Your task to perform on an android device: Open the Play Movies app and select the watchlist tab. Image 0: 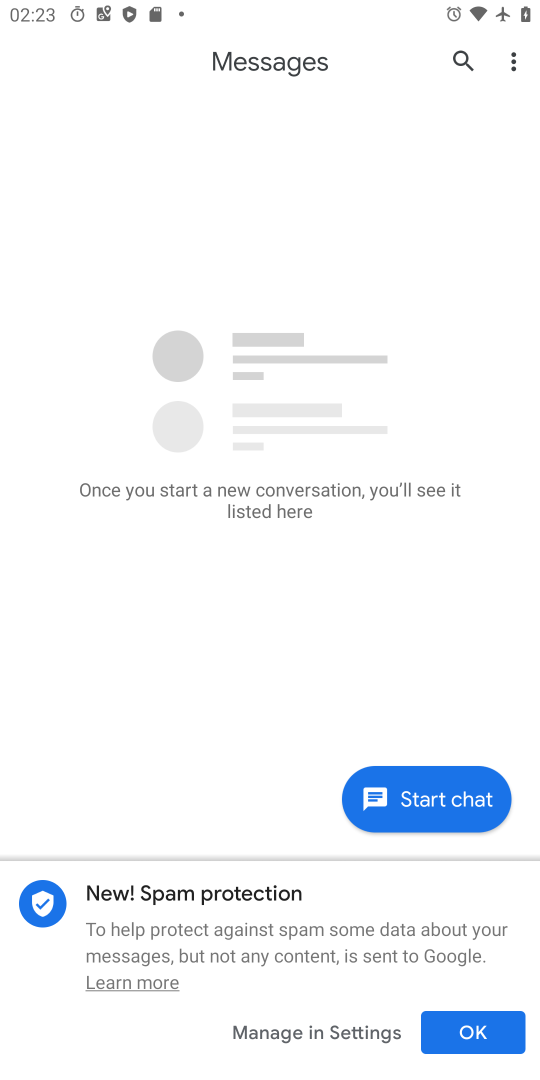
Step 0: press home button
Your task to perform on an android device: Open the Play Movies app and select the watchlist tab. Image 1: 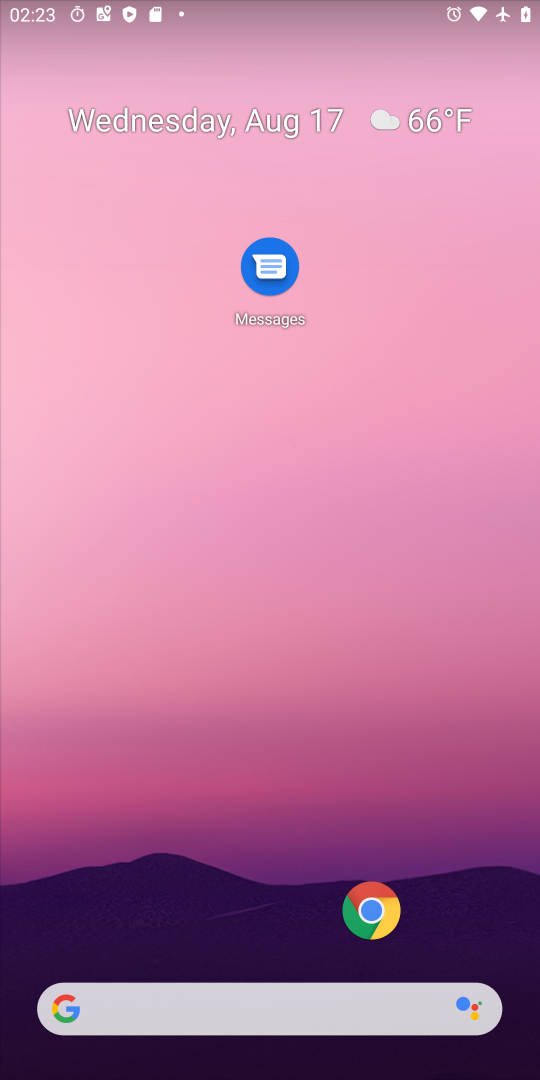
Step 1: drag from (182, 950) to (161, 242)
Your task to perform on an android device: Open the Play Movies app and select the watchlist tab. Image 2: 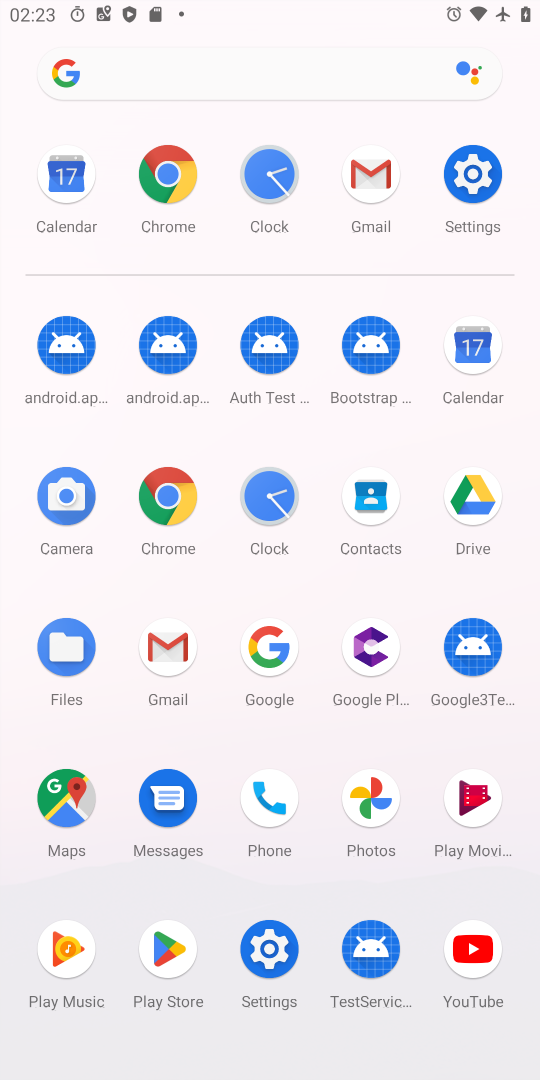
Step 2: click (468, 794)
Your task to perform on an android device: Open the Play Movies app and select the watchlist tab. Image 3: 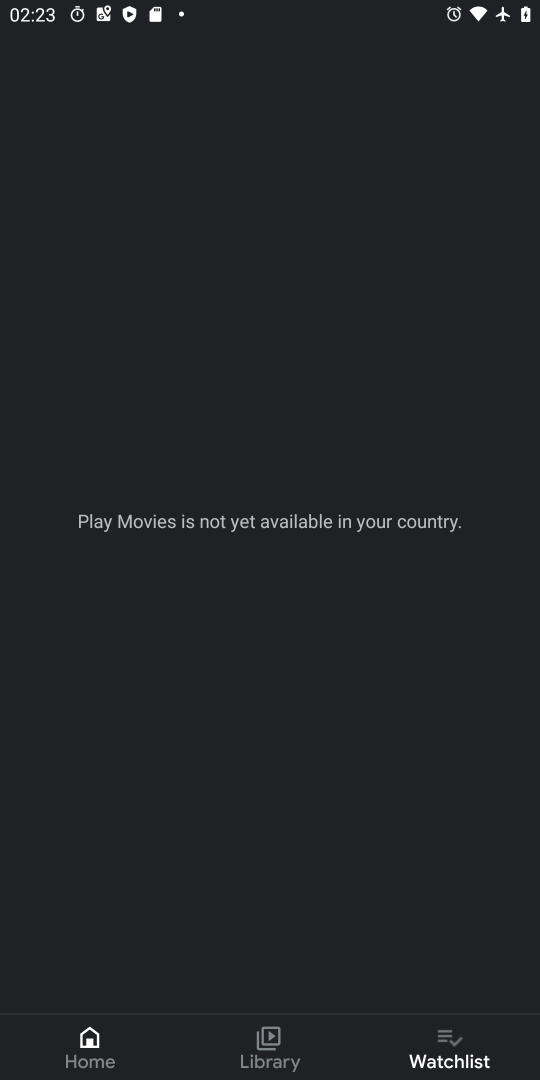
Step 3: click (472, 1039)
Your task to perform on an android device: Open the Play Movies app and select the watchlist tab. Image 4: 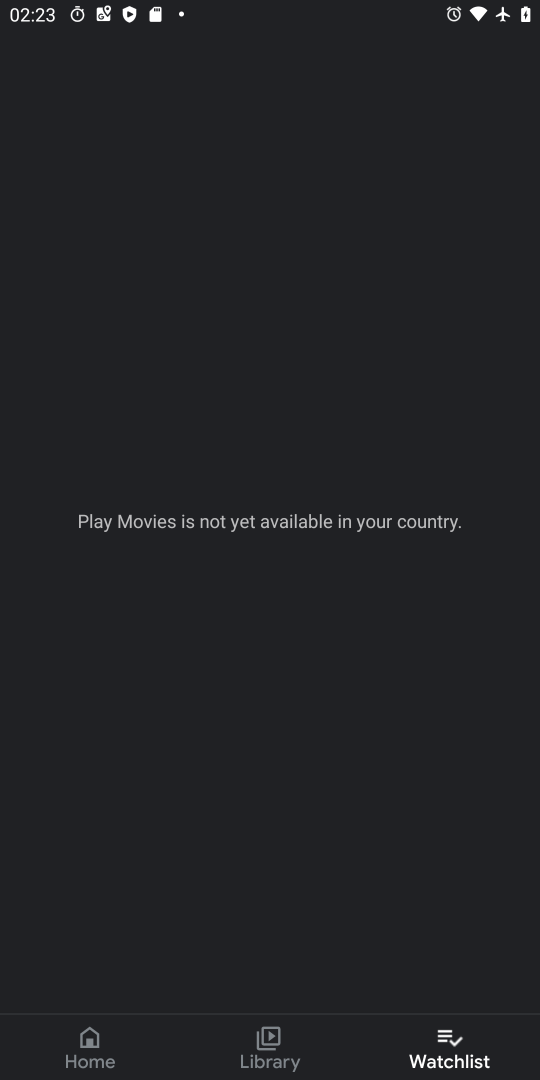
Step 4: task complete